Your task to perform on an android device: change timer sound Image 0: 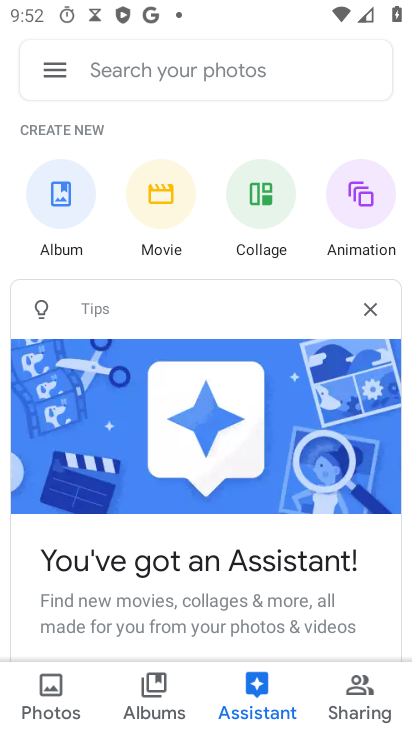
Step 0: press home button
Your task to perform on an android device: change timer sound Image 1: 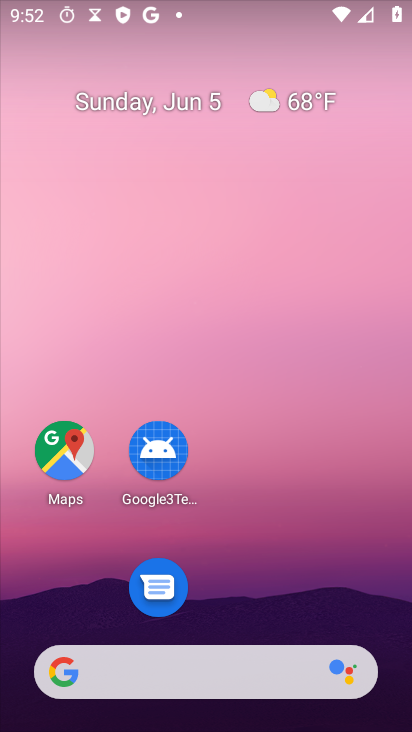
Step 1: drag from (248, 542) to (3, 111)
Your task to perform on an android device: change timer sound Image 2: 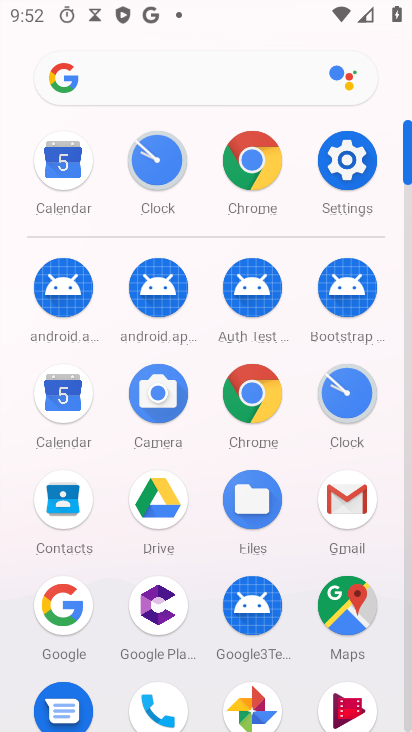
Step 2: click (397, 229)
Your task to perform on an android device: change timer sound Image 3: 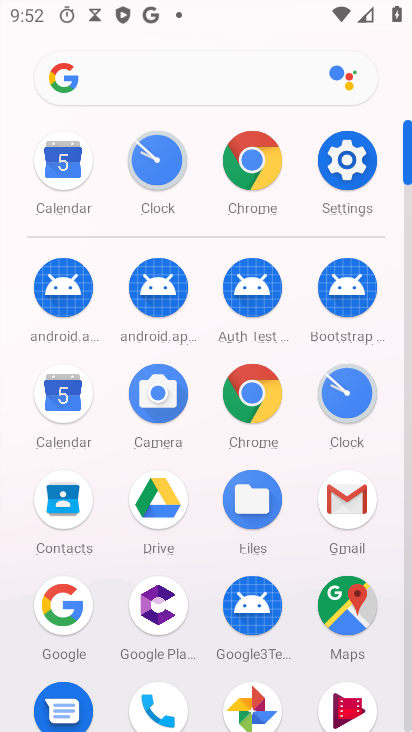
Step 3: click (342, 413)
Your task to perform on an android device: change timer sound Image 4: 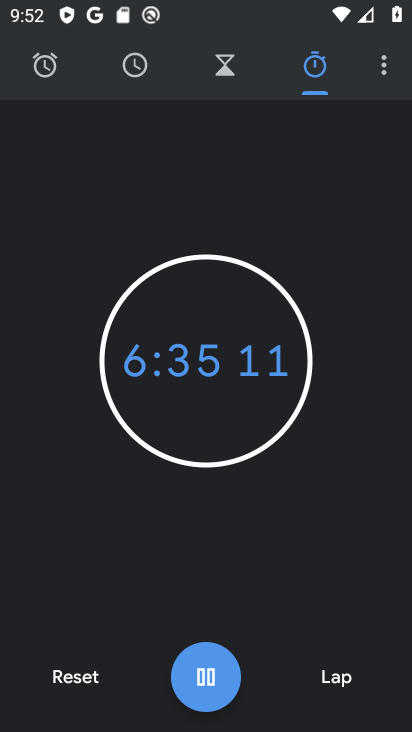
Step 4: click (342, 413)
Your task to perform on an android device: change timer sound Image 5: 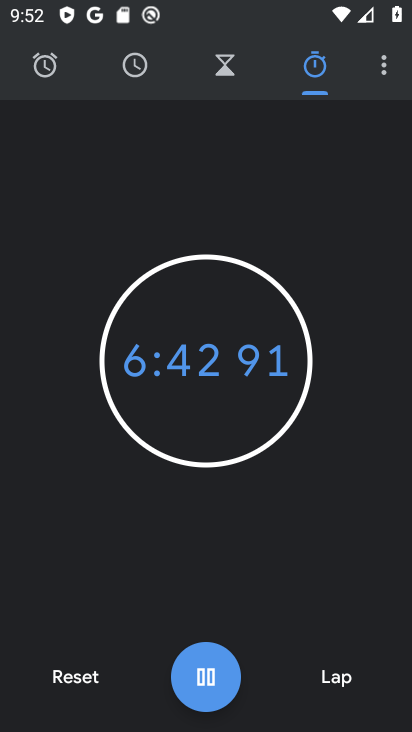
Step 5: click (382, 73)
Your task to perform on an android device: change timer sound Image 6: 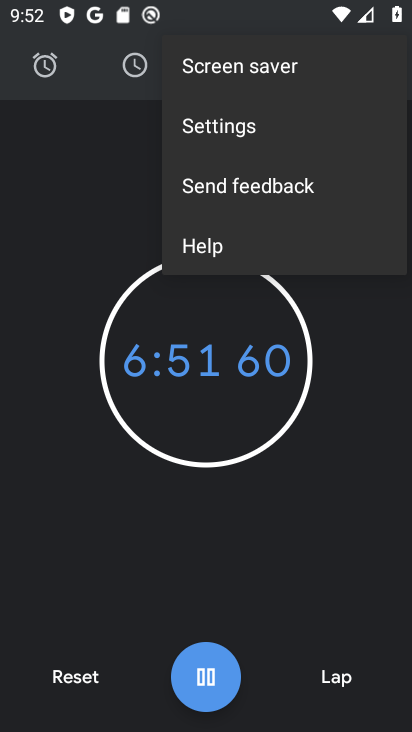
Step 6: click (259, 128)
Your task to perform on an android device: change timer sound Image 7: 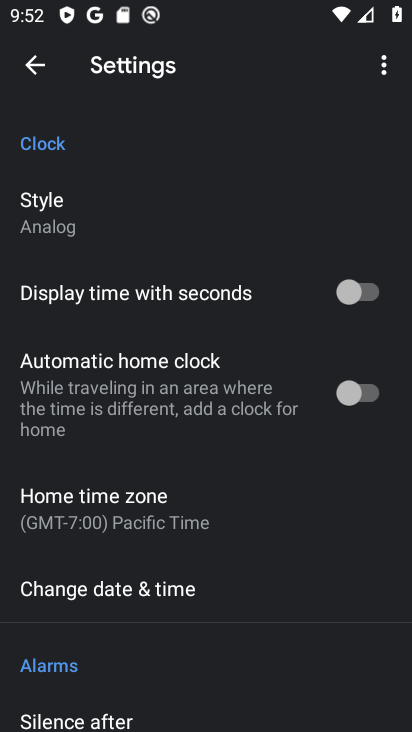
Step 7: click (222, 123)
Your task to perform on an android device: change timer sound Image 8: 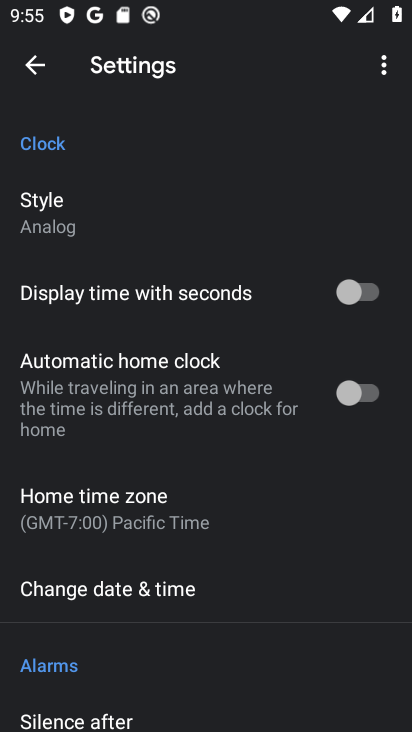
Step 8: drag from (198, 656) to (94, 7)
Your task to perform on an android device: change timer sound Image 9: 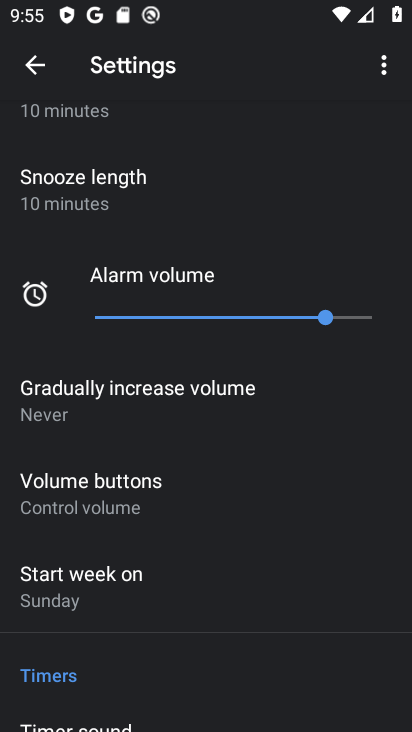
Step 9: drag from (179, 606) to (162, 150)
Your task to perform on an android device: change timer sound Image 10: 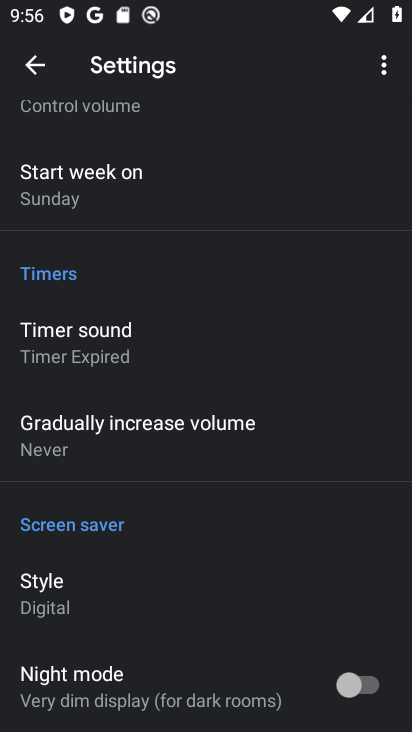
Step 10: click (127, 354)
Your task to perform on an android device: change timer sound Image 11: 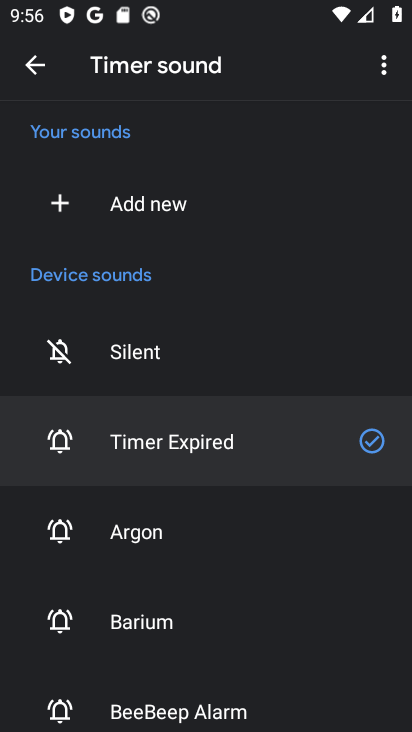
Step 11: click (171, 538)
Your task to perform on an android device: change timer sound Image 12: 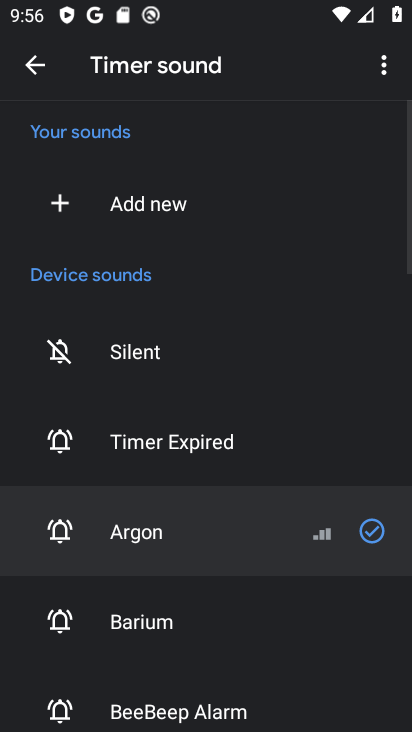
Step 12: task complete